Your task to perform on an android device: Go to network settings Image 0: 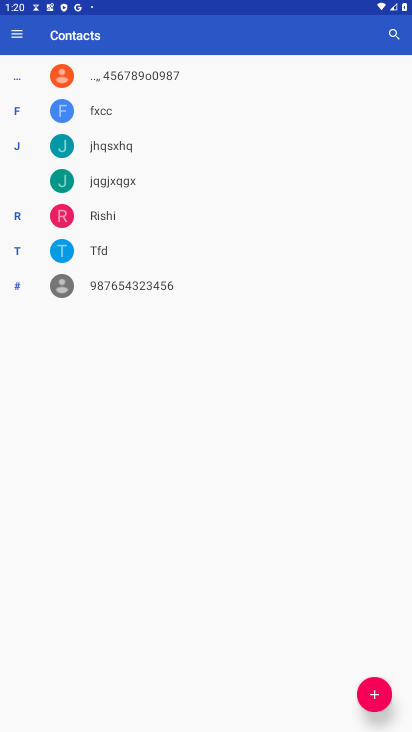
Step 0: press home button
Your task to perform on an android device: Go to network settings Image 1: 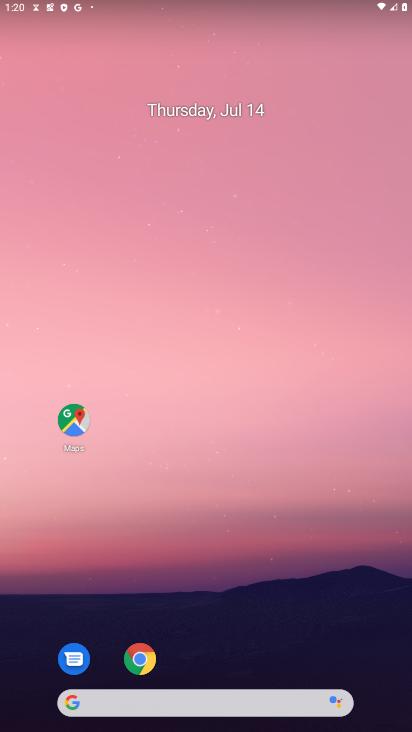
Step 1: drag from (27, 687) to (320, 171)
Your task to perform on an android device: Go to network settings Image 2: 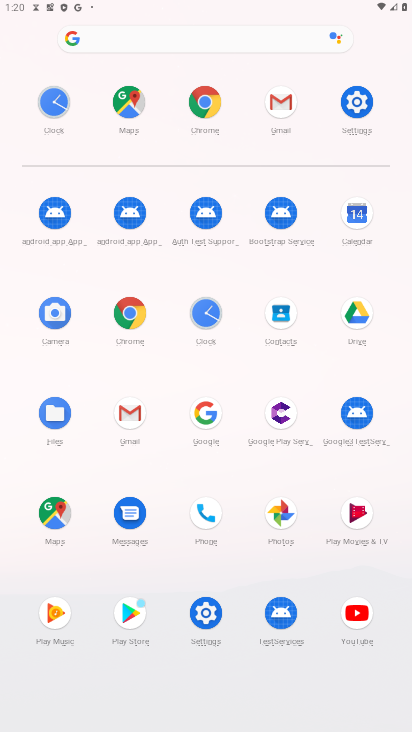
Step 2: click (199, 622)
Your task to perform on an android device: Go to network settings Image 3: 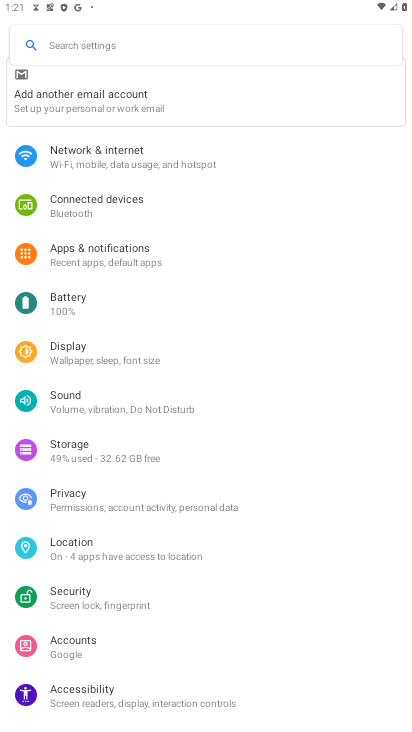
Step 3: click (111, 145)
Your task to perform on an android device: Go to network settings Image 4: 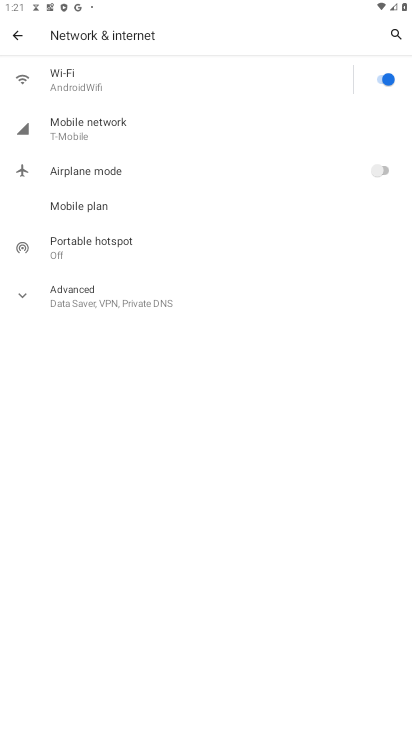
Step 4: task complete